Your task to perform on an android device: Set the phone to "Do not disturb". Image 0: 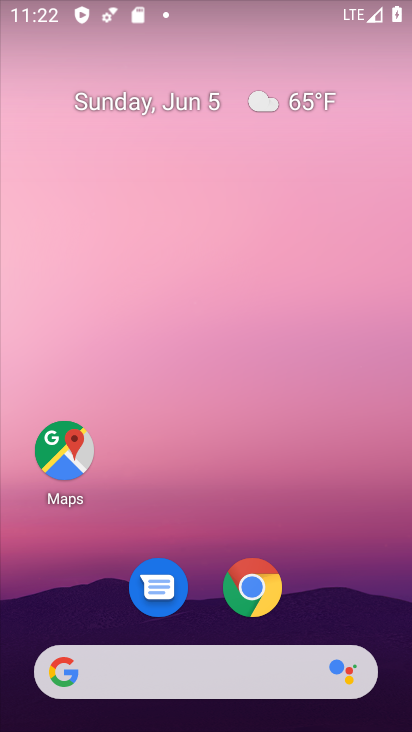
Step 0: drag from (205, 8) to (178, 597)
Your task to perform on an android device: Set the phone to "Do not disturb". Image 1: 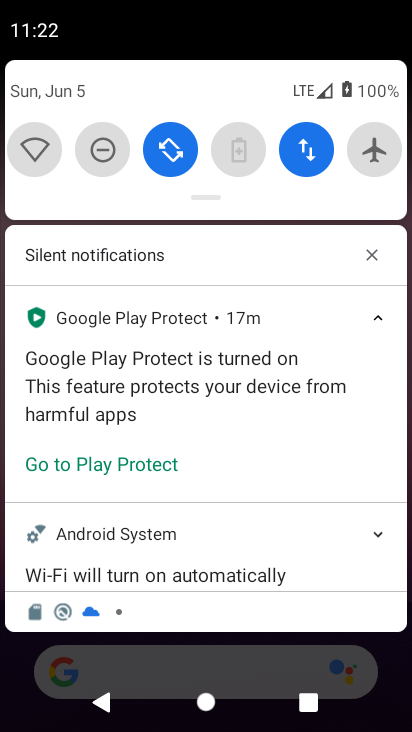
Step 1: click (108, 150)
Your task to perform on an android device: Set the phone to "Do not disturb". Image 2: 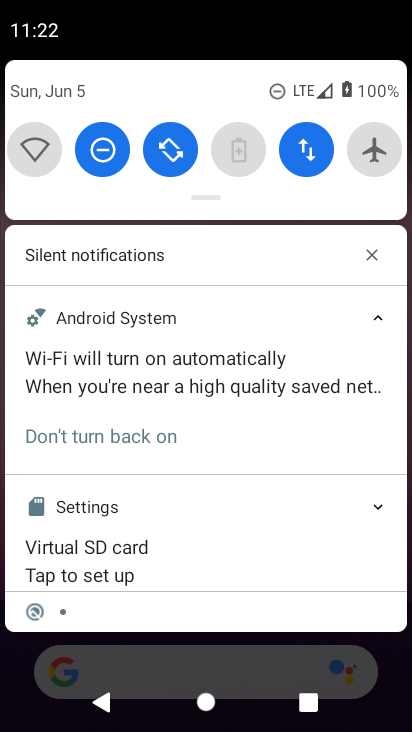
Step 2: task complete